Your task to perform on an android device: open sync settings in chrome Image 0: 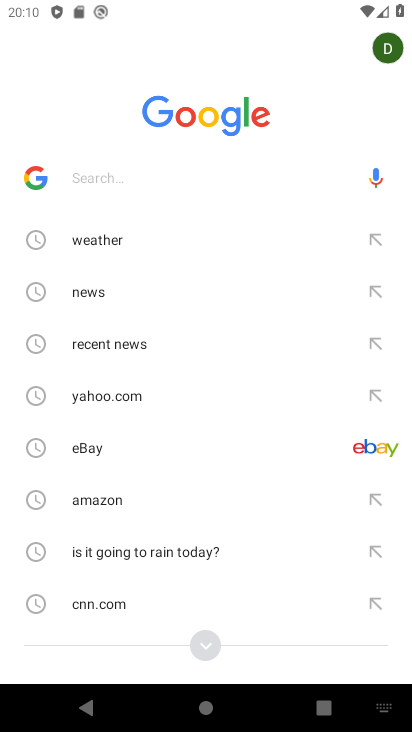
Step 0: press home button
Your task to perform on an android device: open sync settings in chrome Image 1: 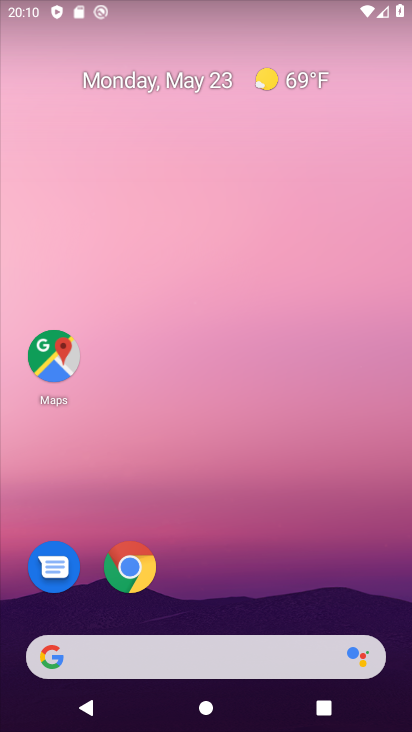
Step 1: click (128, 564)
Your task to perform on an android device: open sync settings in chrome Image 2: 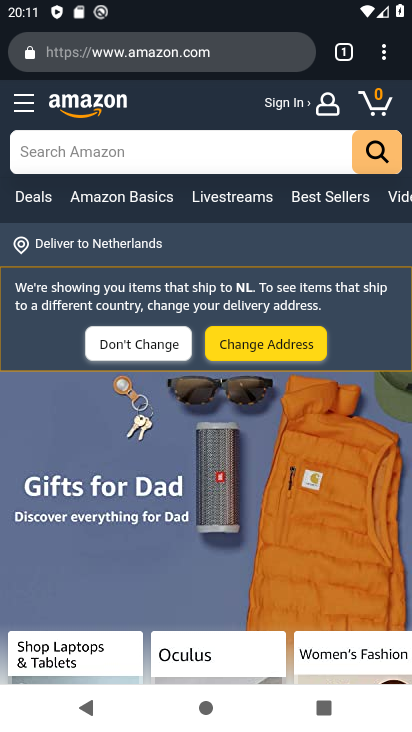
Step 2: click (379, 64)
Your task to perform on an android device: open sync settings in chrome Image 3: 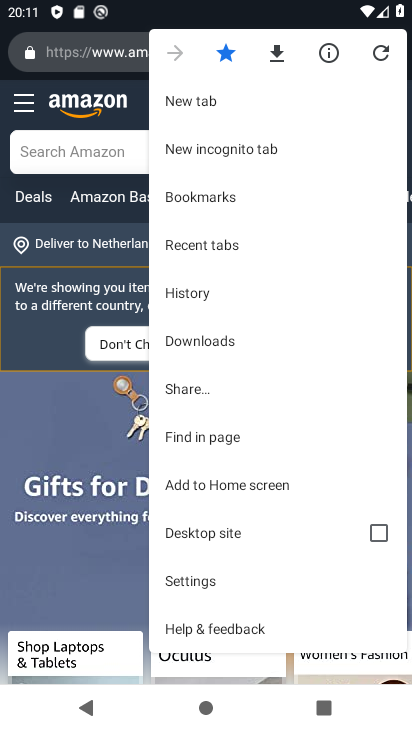
Step 3: click (193, 584)
Your task to perform on an android device: open sync settings in chrome Image 4: 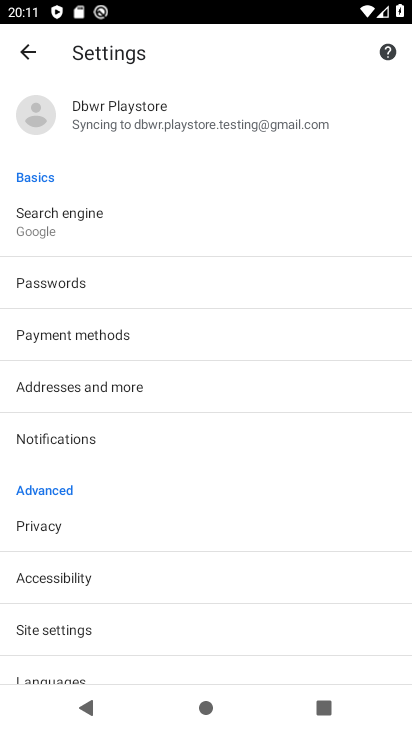
Step 4: click (163, 130)
Your task to perform on an android device: open sync settings in chrome Image 5: 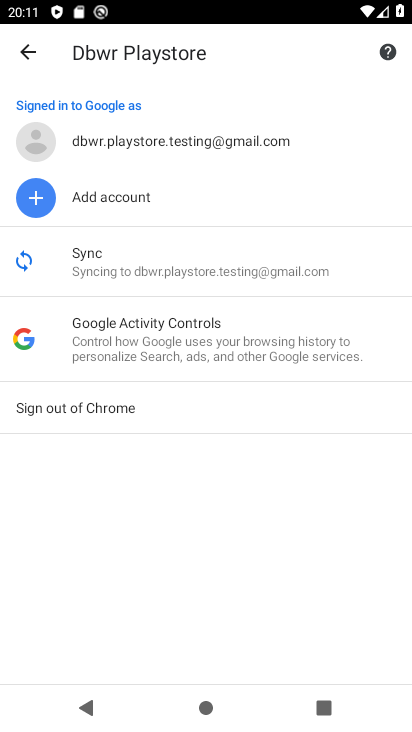
Step 5: click (159, 272)
Your task to perform on an android device: open sync settings in chrome Image 6: 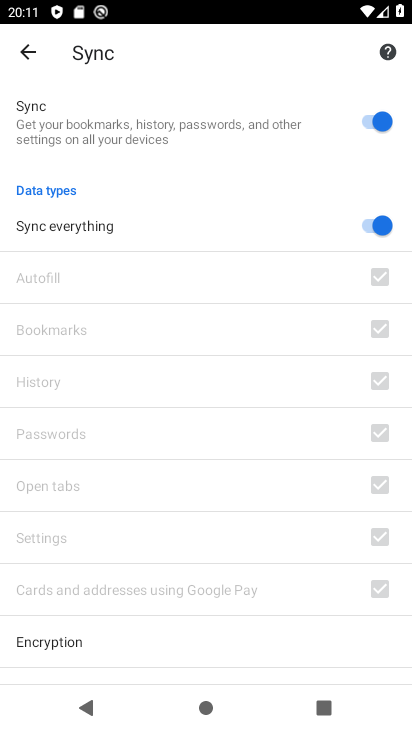
Step 6: task complete